Your task to perform on an android device: Go to Wikipedia Image 0: 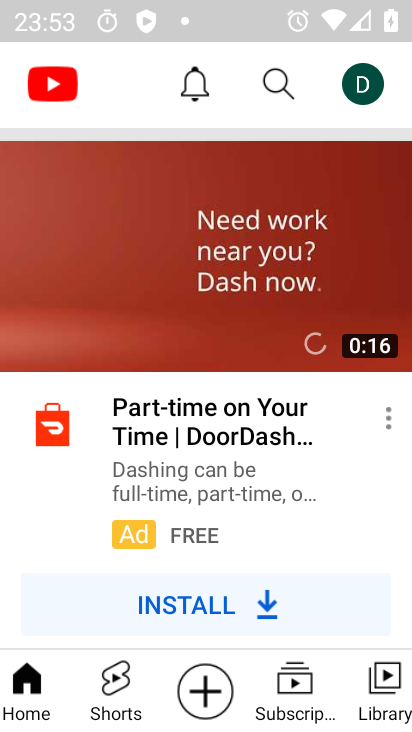
Step 0: click (108, 99)
Your task to perform on an android device: Go to Wikipedia Image 1: 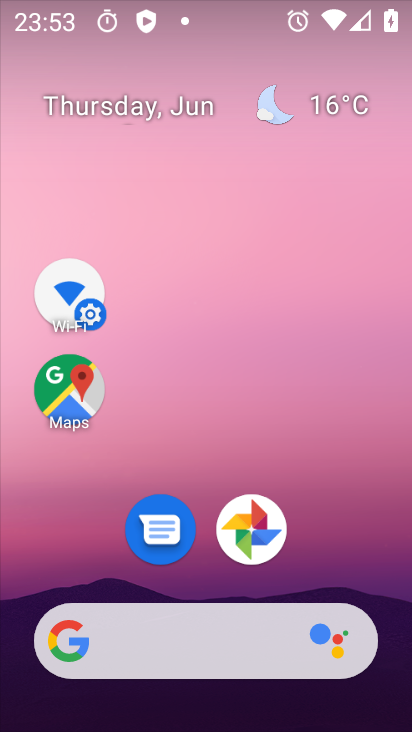
Step 1: press back button
Your task to perform on an android device: Go to Wikipedia Image 2: 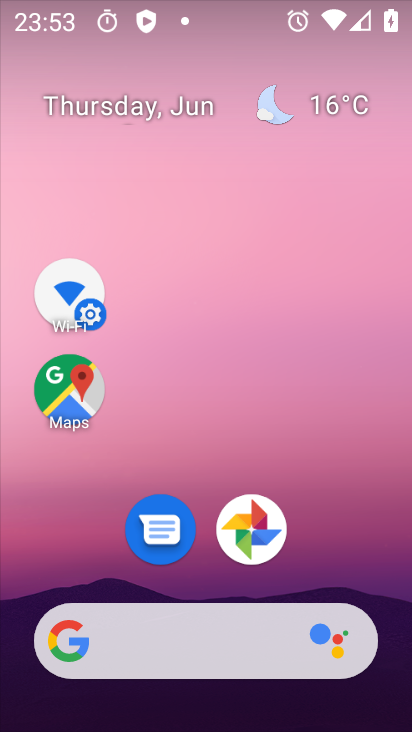
Step 2: drag from (202, 689) to (150, 7)
Your task to perform on an android device: Go to Wikipedia Image 3: 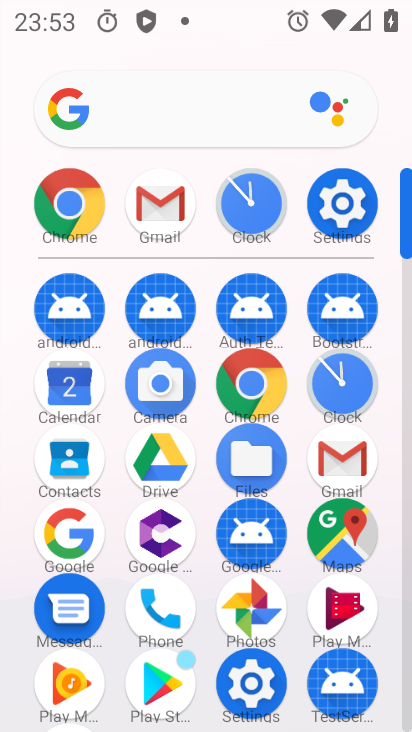
Step 3: click (72, 205)
Your task to perform on an android device: Go to Wikipedia Image 4: 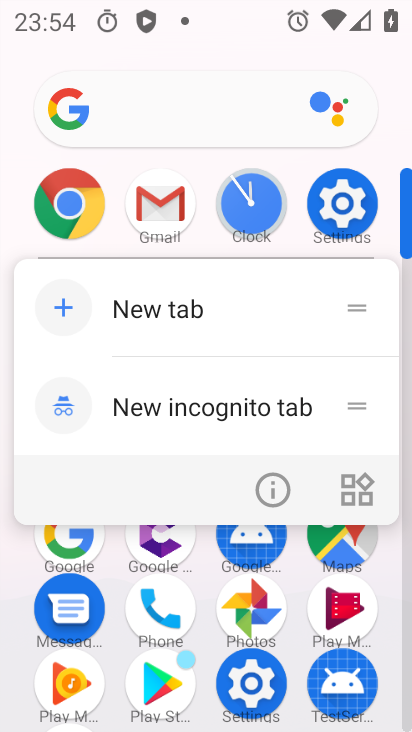
Step 4: click (167, 303)
Your task to perform on an android device: Go to Wikipedia Image 5: 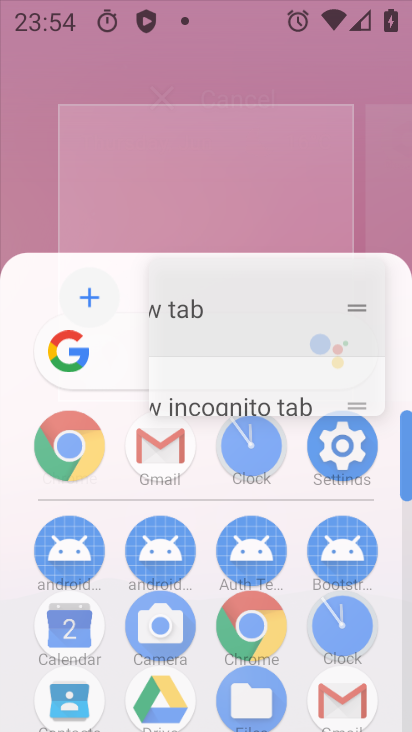
Step 5: click (167, 300)
Your task to perform on an android device: Go to Wikipedia Image 6: 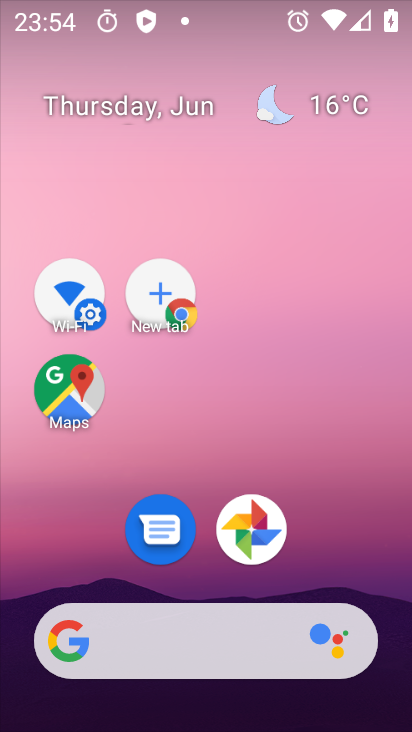
Step 6: drag from (223, 556) to (206, 0)
Your task to perform on an android device: Go to Wikipedia Image 7: 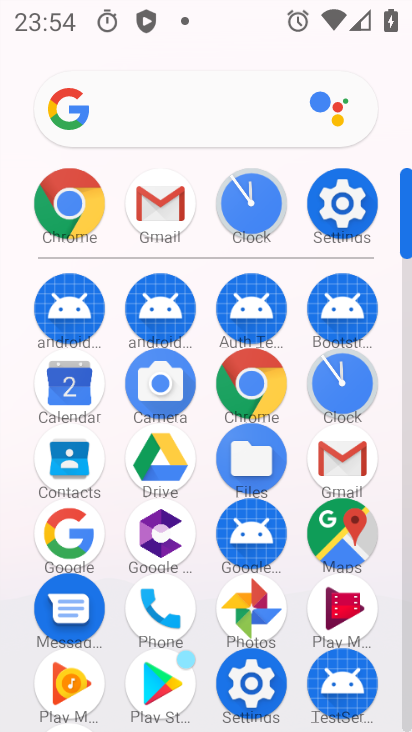
Step 7: click (57, 204)
Your task to perform on an android device: Go to Wikipedia Image 8: 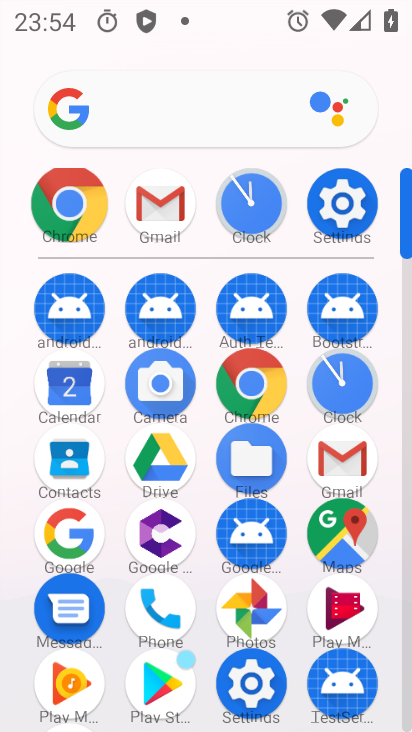
Step 8: click (60, 204)
Your task to perform on an android device: Go to Wikipedia Image 9: 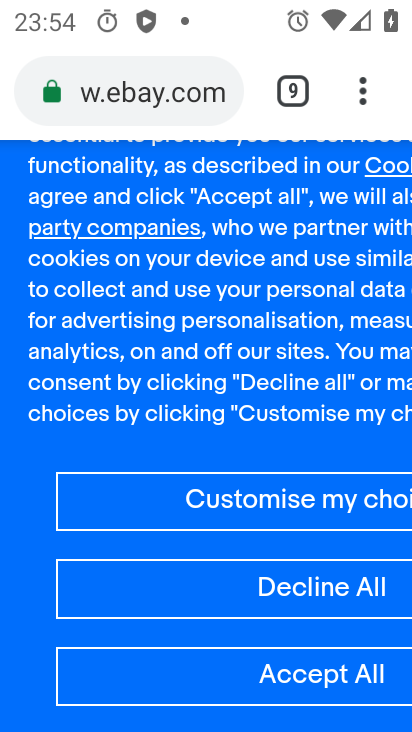
Step 9: drag from (364, 102) to (77, 175)
Your task to perform on an android device: Go to Wikipedia Image 10: 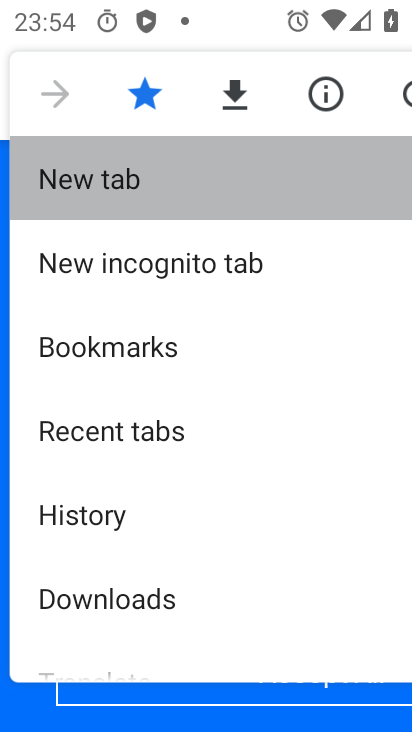
Step 10: click (77, 175)
Your task to perform on an android device: Go to Wikipedia Image 11: 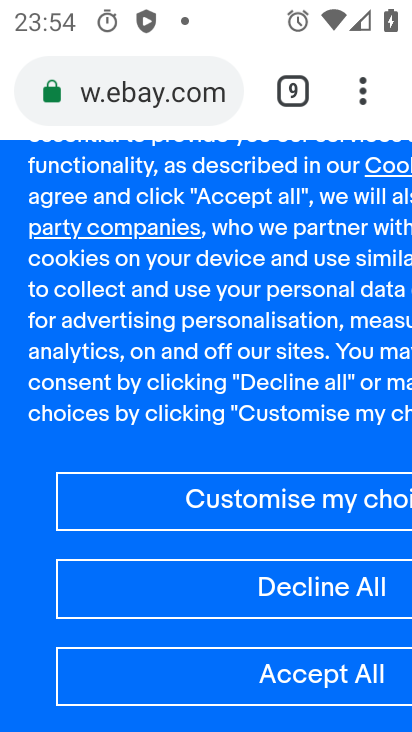
Step 11: click (87, 187)
Your task to perform on an android device: Go to Wikipedia Image 12: 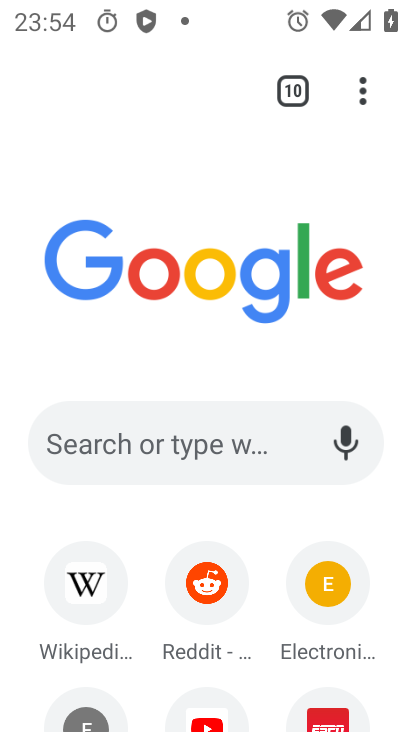
Step 12: click (82, 565)
Your task to perform on an android device: Go to Wikipedia Image 13: 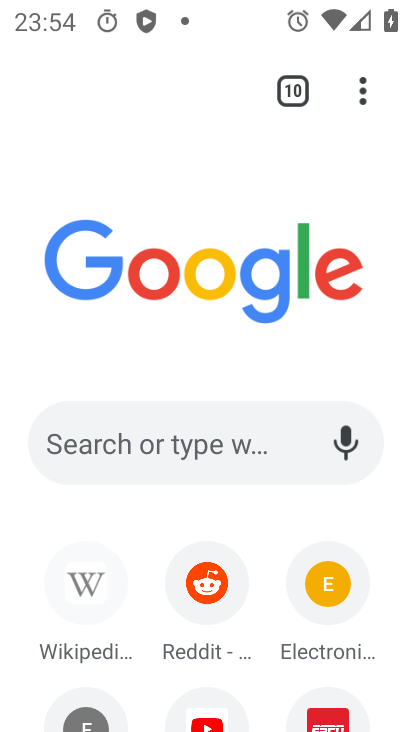
Step 13: click (75, 571)
Your task to perform on an android device: Go to Wikipedia Image 14: 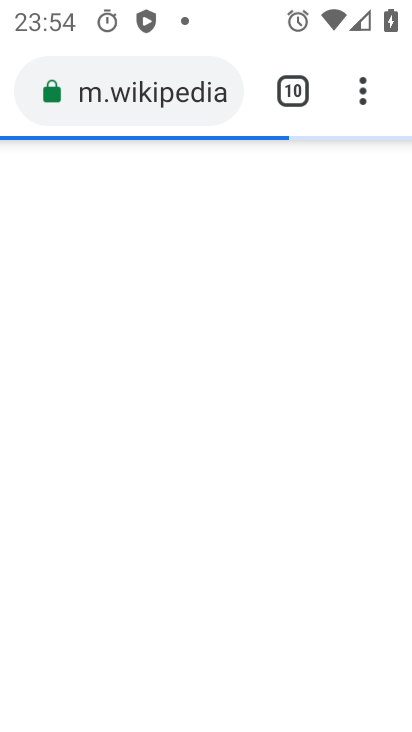
Step 14: click (70, 583)
Your task to perform on an android device: Go to Wikipedia Image 15: 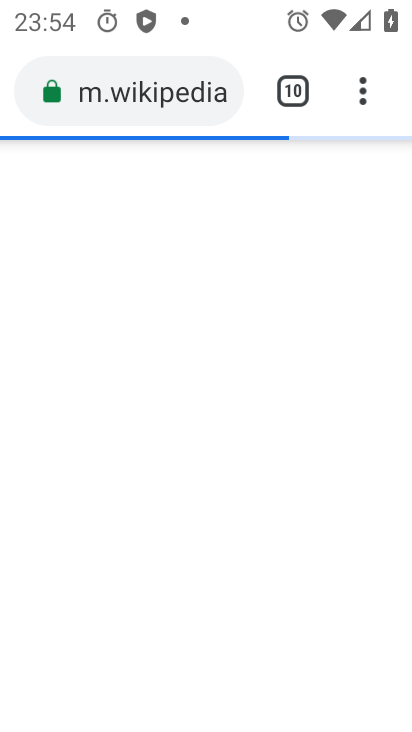
Step 15: click (63, 564)
Your task to perform on an android device: Go to Wikipedia Image 16: 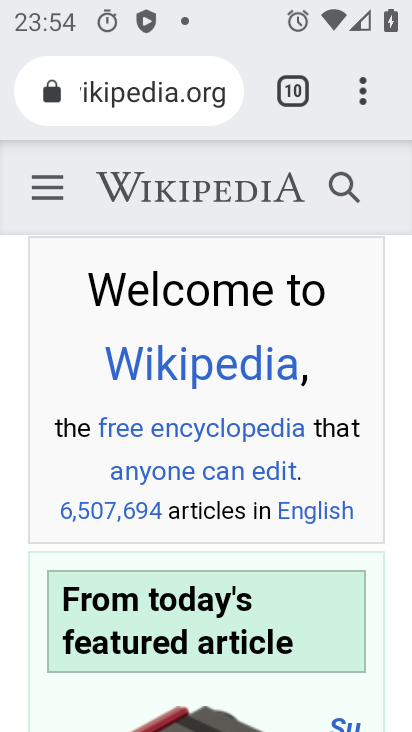
Step 16: task complete